Your task to perform on an android device: Open display settings Image 0: 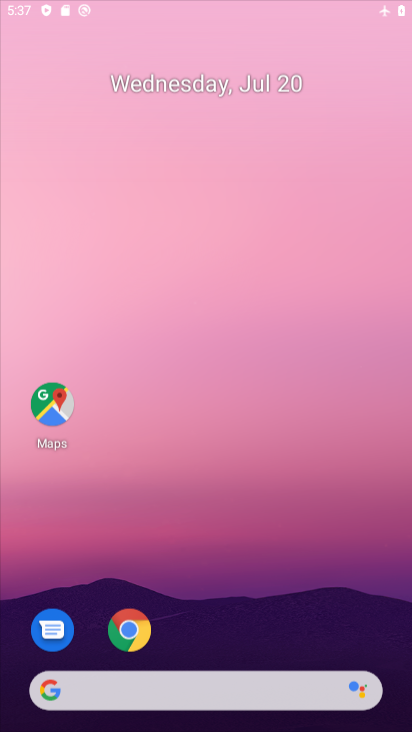
Step 0: press home button
Your task to perform on an android device: Open display settings Image 1: 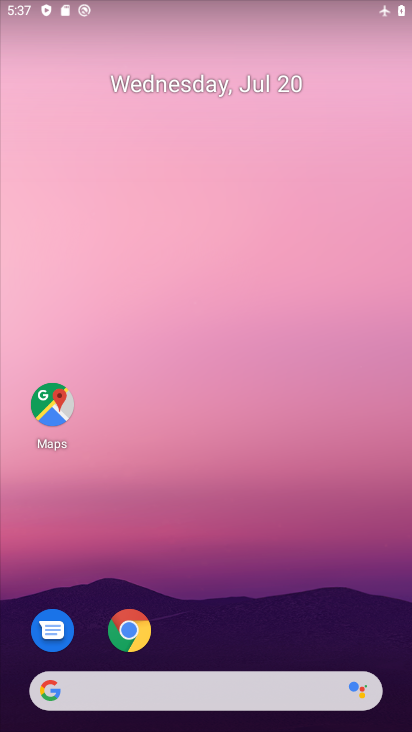
Step 1: drag from (323, 680) to (327, 0)
Your task to perform on an android device: Open display settings Image 2: 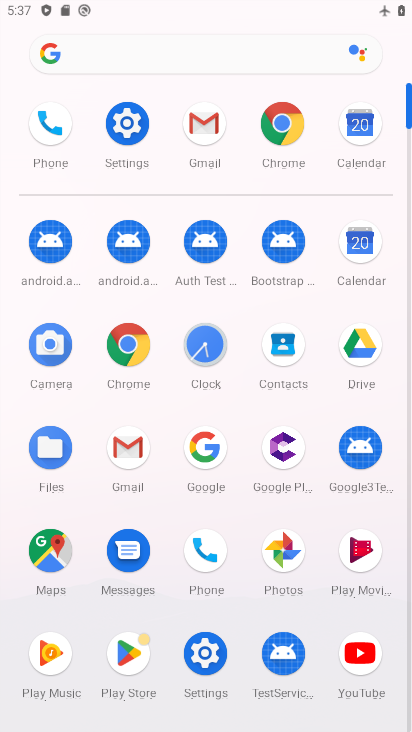
Step 2: click (114, 135)
Your task to perform on an android device: Open display settings Image 3: 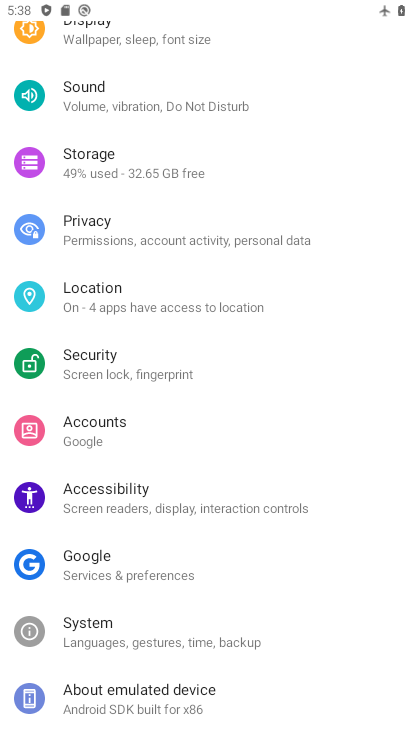
Step 3: drag from (121, 191) to (142, 379)
Your task to perform on an android device: Open display settings Image 4: 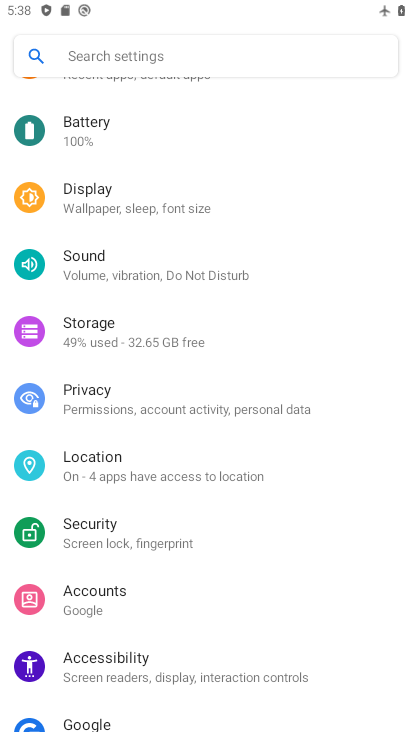
Step 4: click (144, 199)
Your task to perform on an android device: Open display settings Image 5: 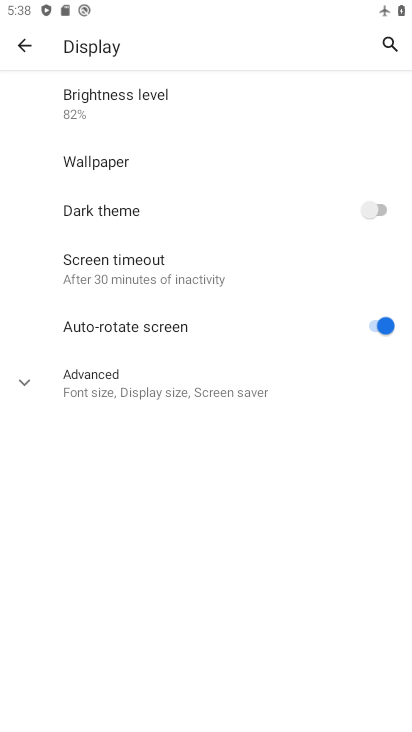
Step 5: task complete